Your task to perform on an android device: Go to Google maps Image 0: 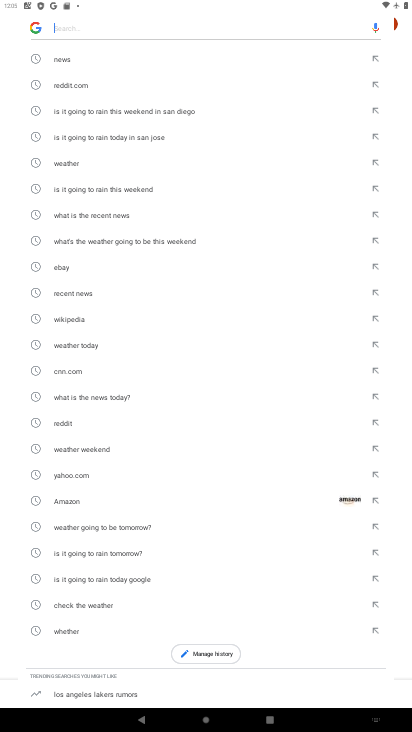
Step 0: press home button
Your task to perform on an android device: Go to Google maps Image 1: 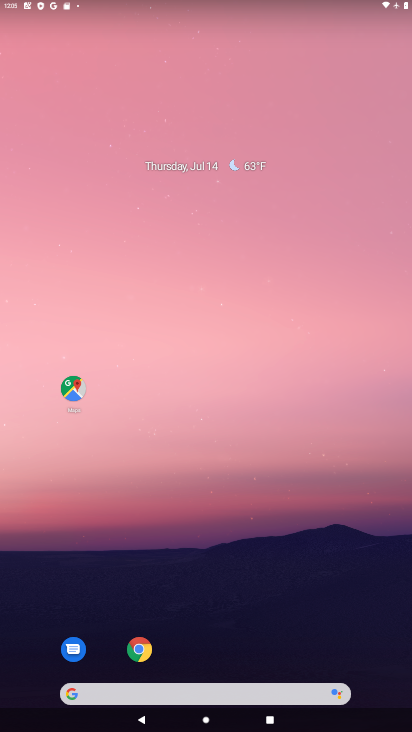
Step 1: drag from (203, 631) to (222, 173)
Your task to perform on an android device: Go to Google maps Image 2: 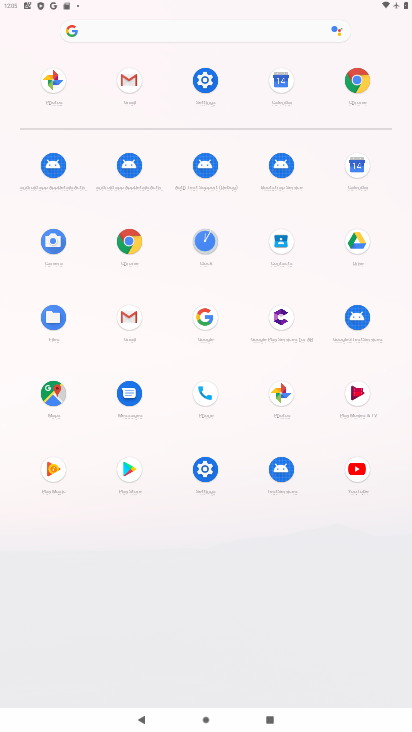
Step 2: click (37, 396)
Your task to perform on an android device: Go to Google maps Image 3: 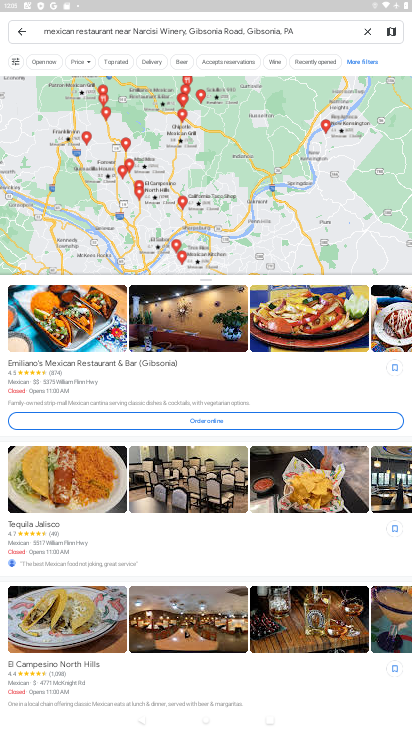
Step 3: task complete